Your task to perform on an android device: turn on airplane mode Image 0: 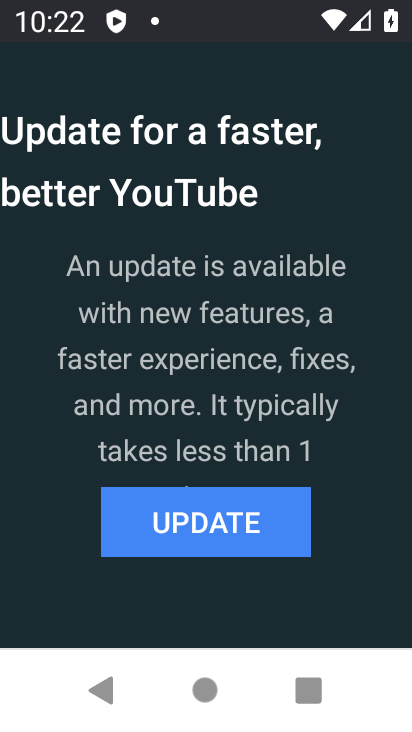
Step 0: press home button
Your task to perform on an android device: turn on airplane mode Image 1: 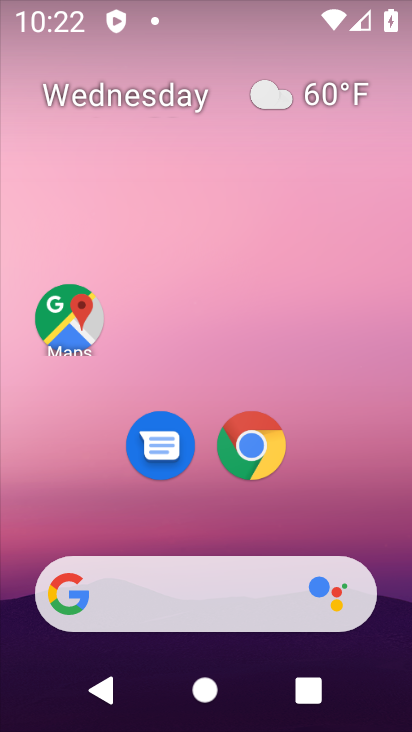
Step 1: drag from (192, 506) to (200, 195)
Your task to perform on an android device: turn on airplane mode Image 2: 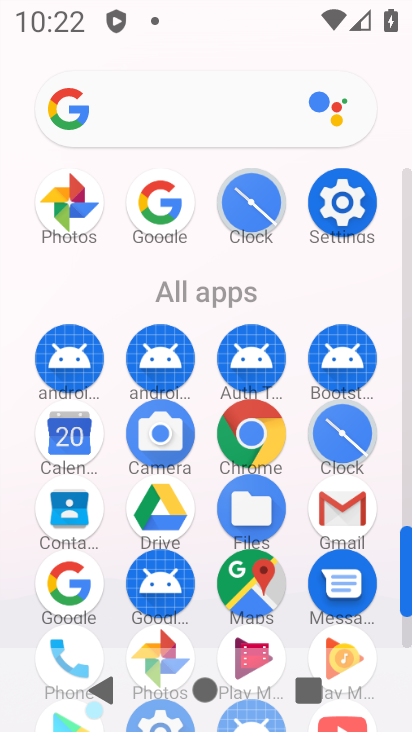
Step 2: click (329, 206)
Your task to perform on an android device: turn on airplane mode Image 3: 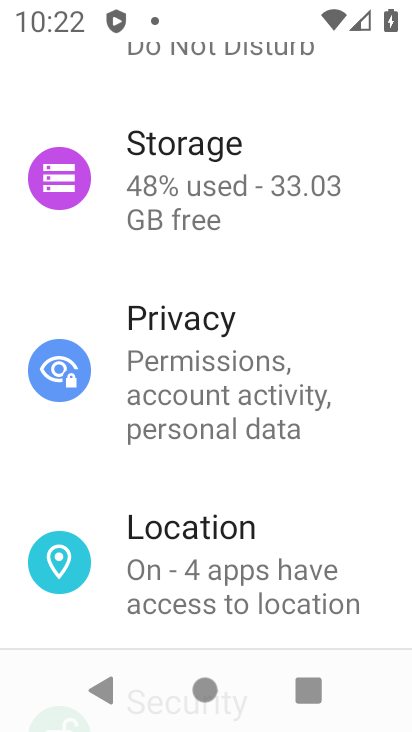
Step 3: drag from (235, 253) to (247, 552)
Your task to perform on an android device: turn on airplane mode Image 4: 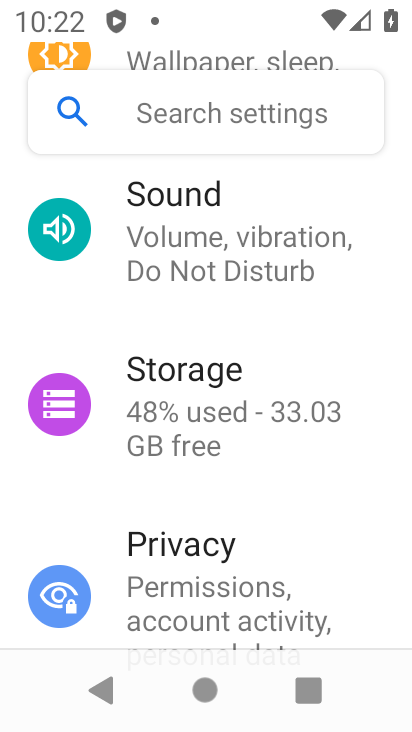
Step 4: drag from (269, 240) to (273, 562)
Your task to perform on an android device: turn on airplane mode Image 5: 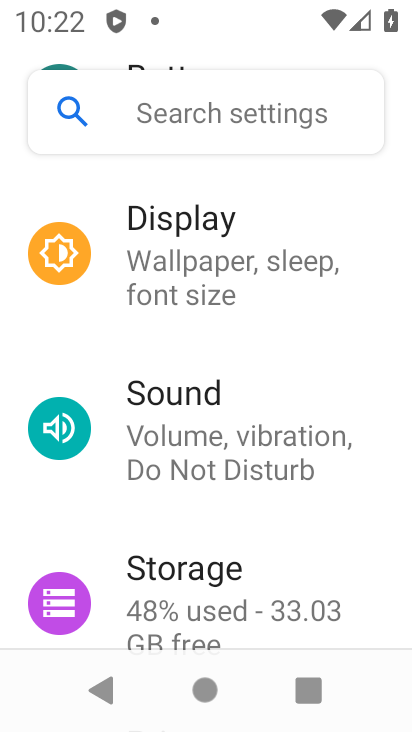
Step 5: drag from (249, 214) to (249, 561)
Your task to perform on an android device: turn on airplane mode Image 6: 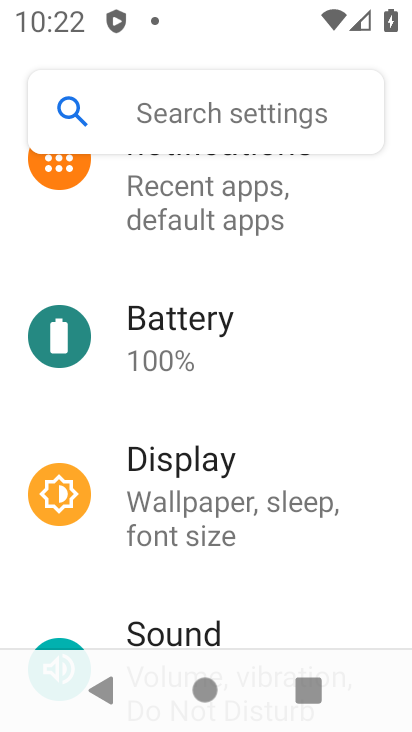
Step 6: drag from (225, 233) to (233, 473)
Your task to perform on an android device: turn on airplane mode Image 7: 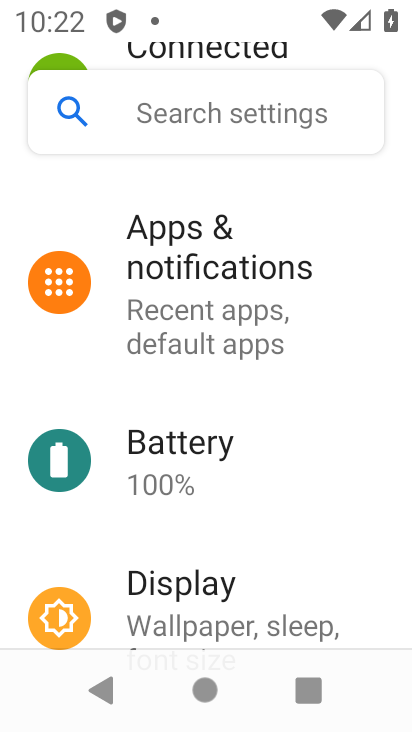
Step 7: drag from (251, 278) to (265, 551)
Your task to perform on an android device: turn on airplane mode Image 8: 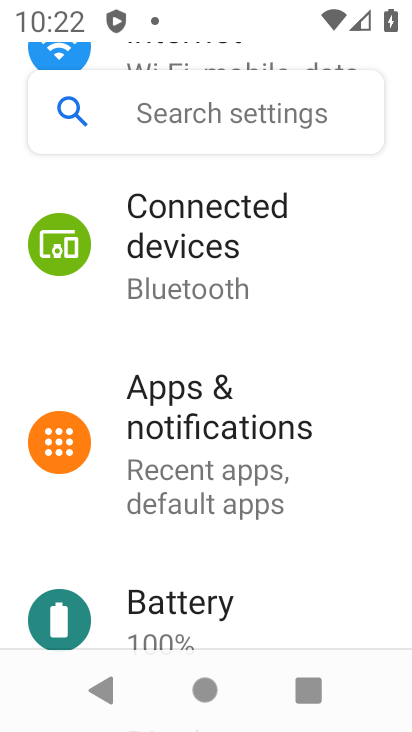
Step 8: drag from (277, 251) to (291, 527)
Your task to perform on an android device: turn on airplane mode Image 9: 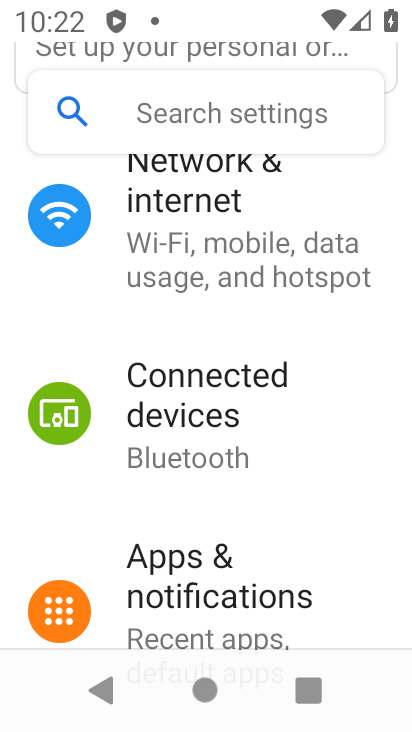
Step 9: click (239, 273)
Your task to perform on an android device: turn on airplane mode Image 10: 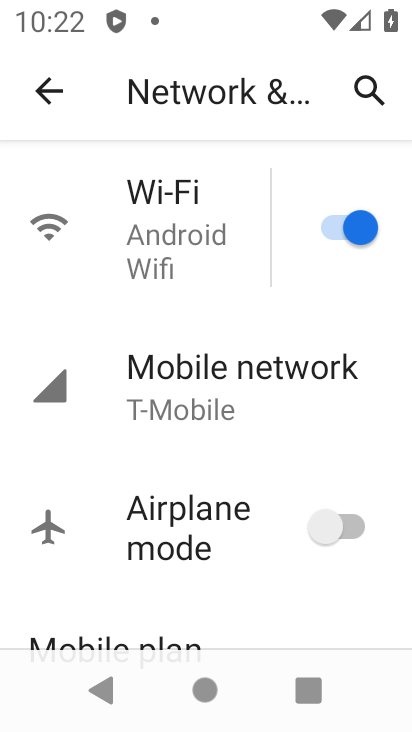
Step 10: click (348, 521)
Your task to perform on an android device: turn on airplane mode Image 11: 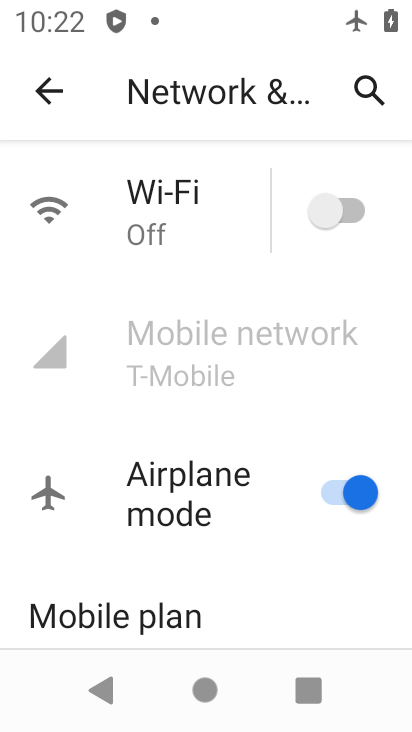
Step 11: task complete